Your task to perform on an android device: open chrome privacy settings Image 0: 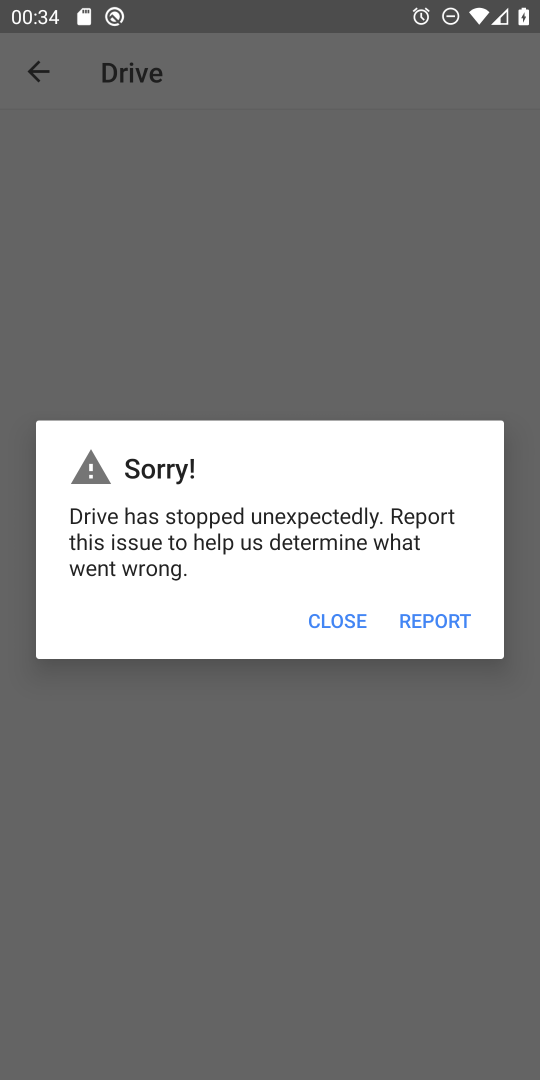
Step 0: press home button
Your task to perform on an android device: open chrome privacy settings Image 1: 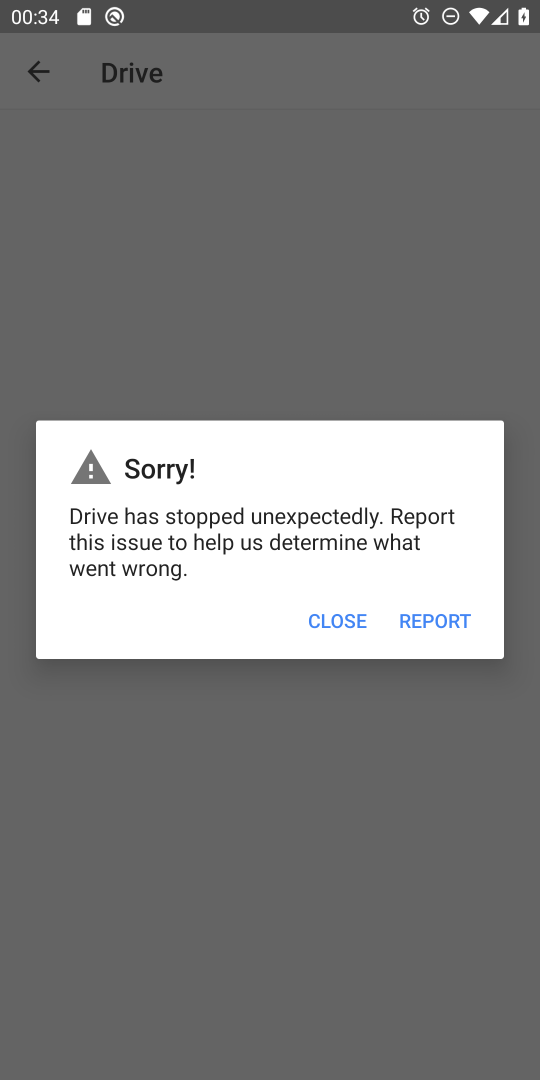
Step 1: press home button
Your task to perform on an android device: open chrome privacy settings Image 2: 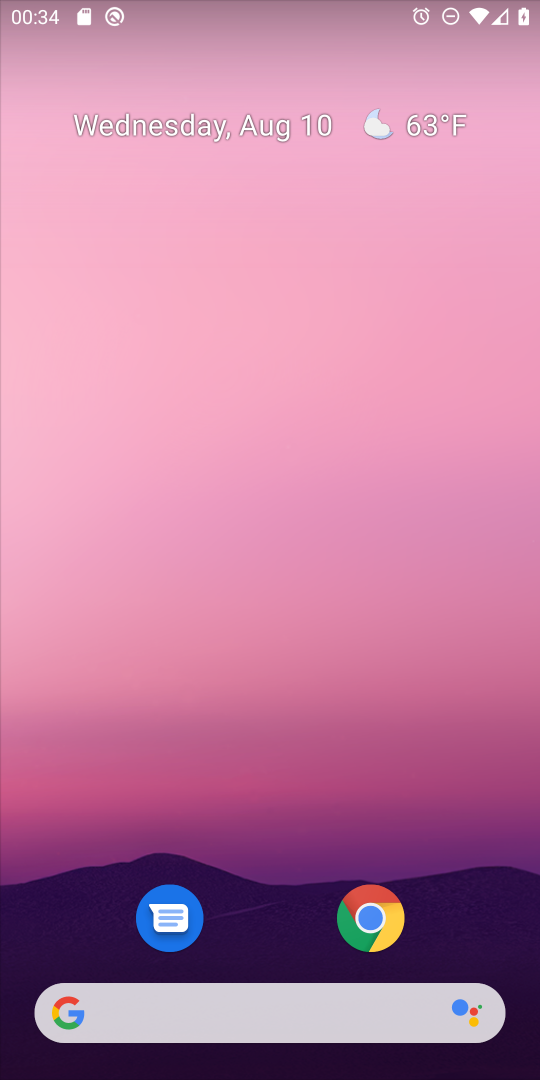
Step 2: drag from (281, 853) to (265, 131)
Your task to perform on an android device: open chrome privacy settings Image 3: 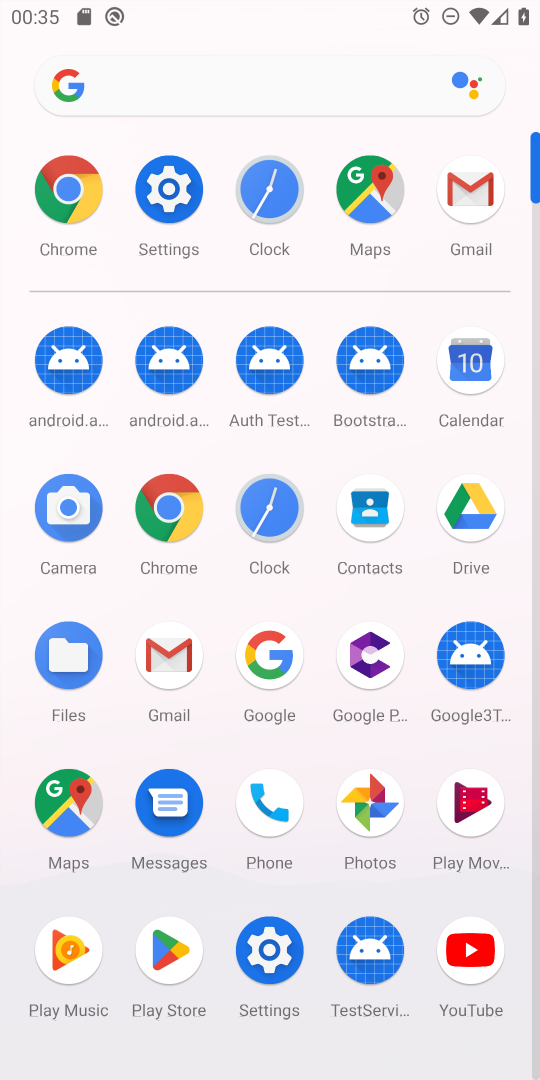
Step 3: click (168, 513)
Your task to perform on an android device: open chrome privacy settings Image 4: 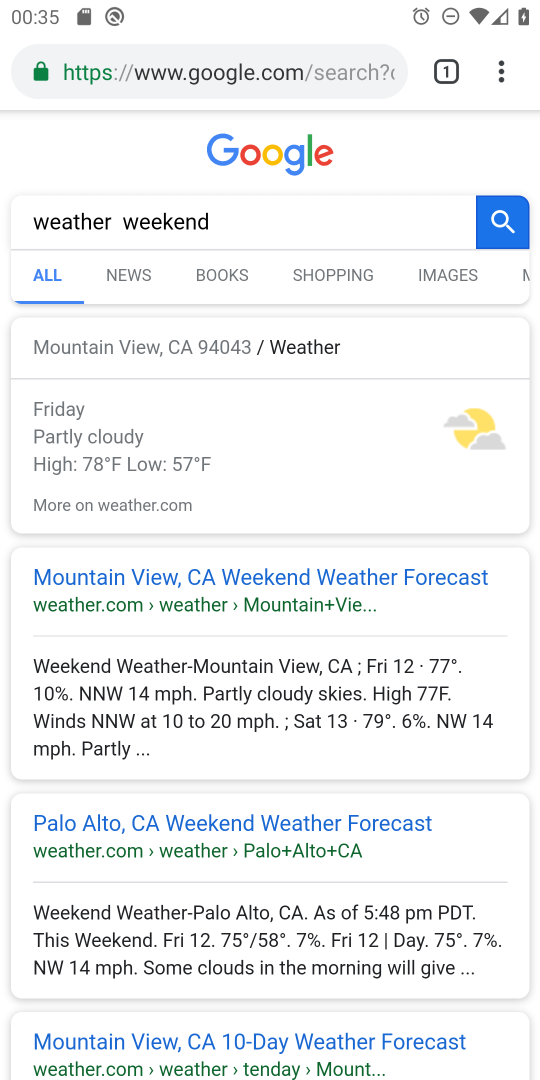
Step 4: click (503, 62)
Your task to perform on an android device: open chrome privacy settings Image 5: 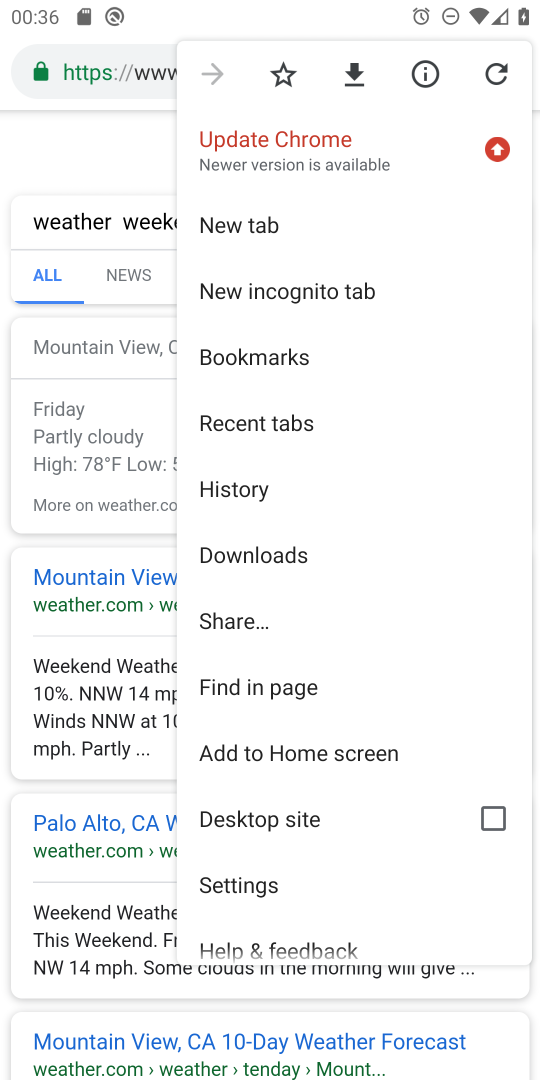
Step 5: click (272, 882)
Your task to perform on an android device: open chrome privacy settings Image 6: 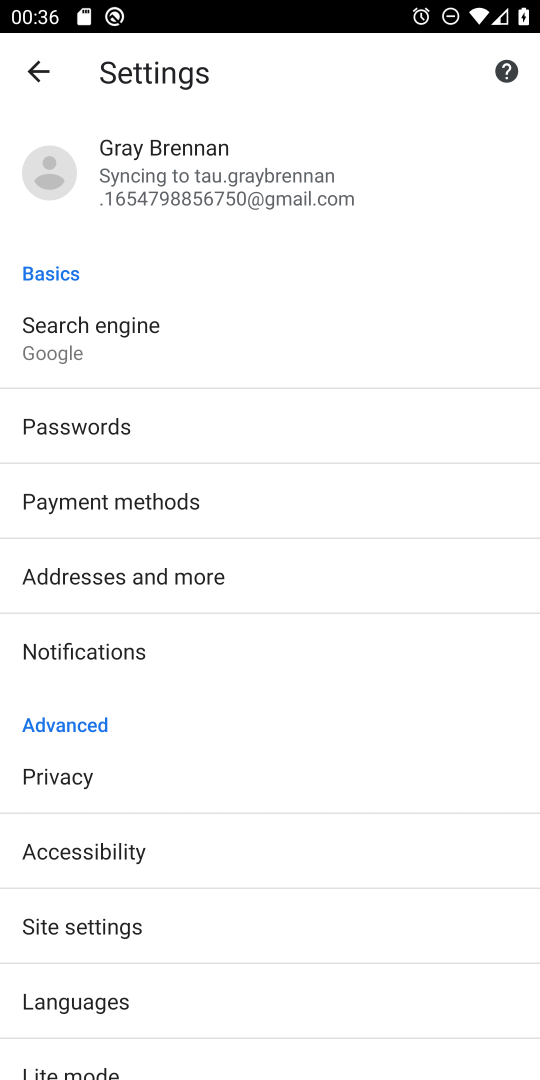
Step 6: drag from (411, 884) to (442, 274)
Your task to perform on an android device: open chrome privacy settings Image 7: 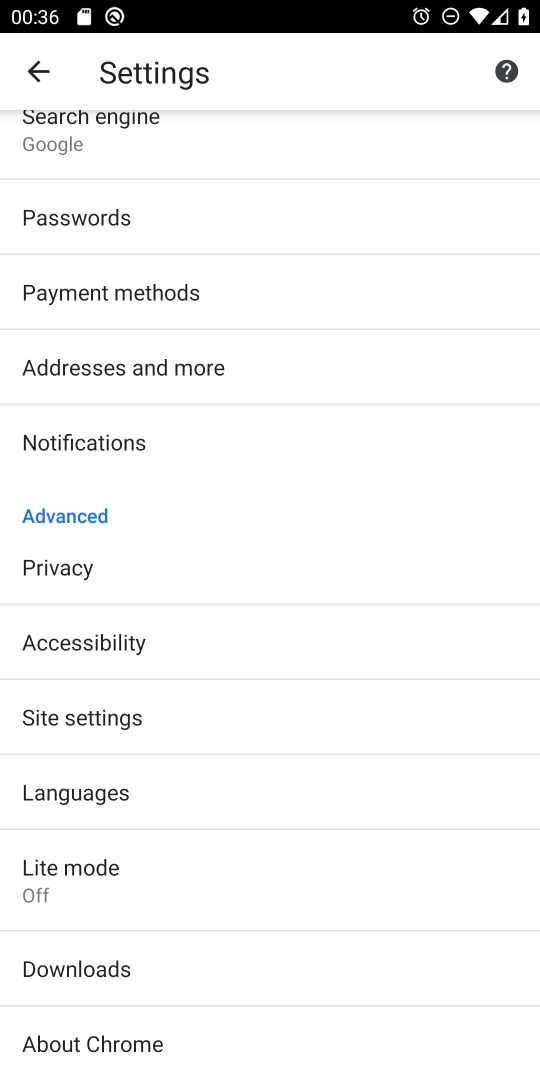
Step 7: click (79, 558)
Your task to perform on an android device: open chrome privacy settings Image 8: 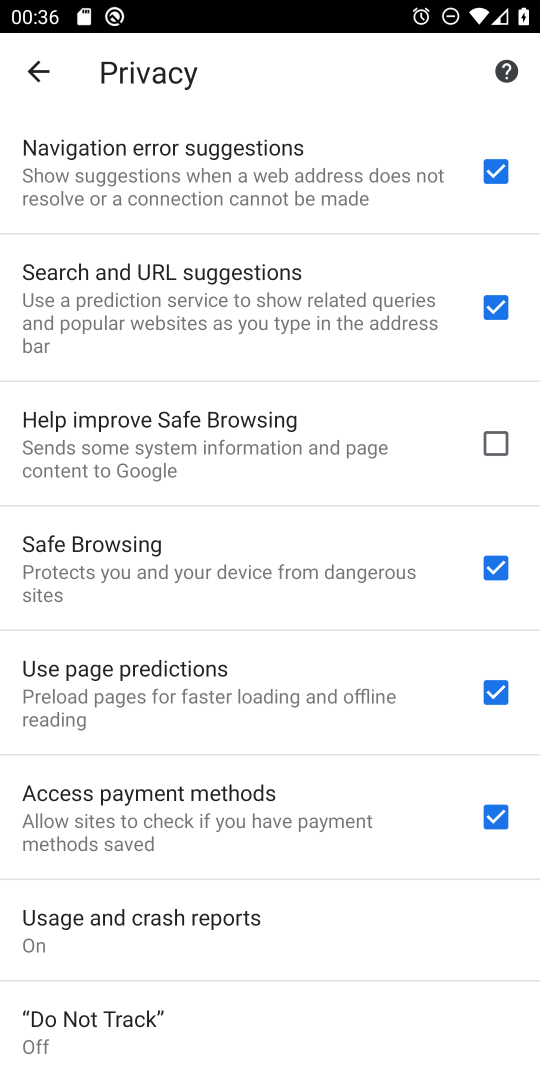
Step 8: task complete